Your task to perform on an android device: Turn on the flashlight Image 0: 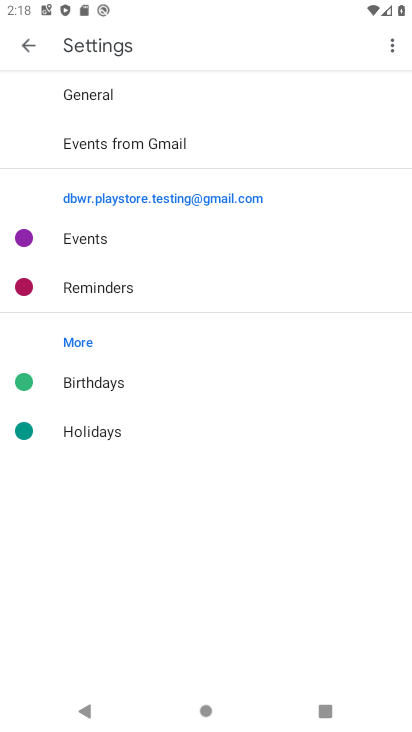
Step 0: task impossible